Your task to perform on an android device: Search for flights from Boston to Sydney Image 0: 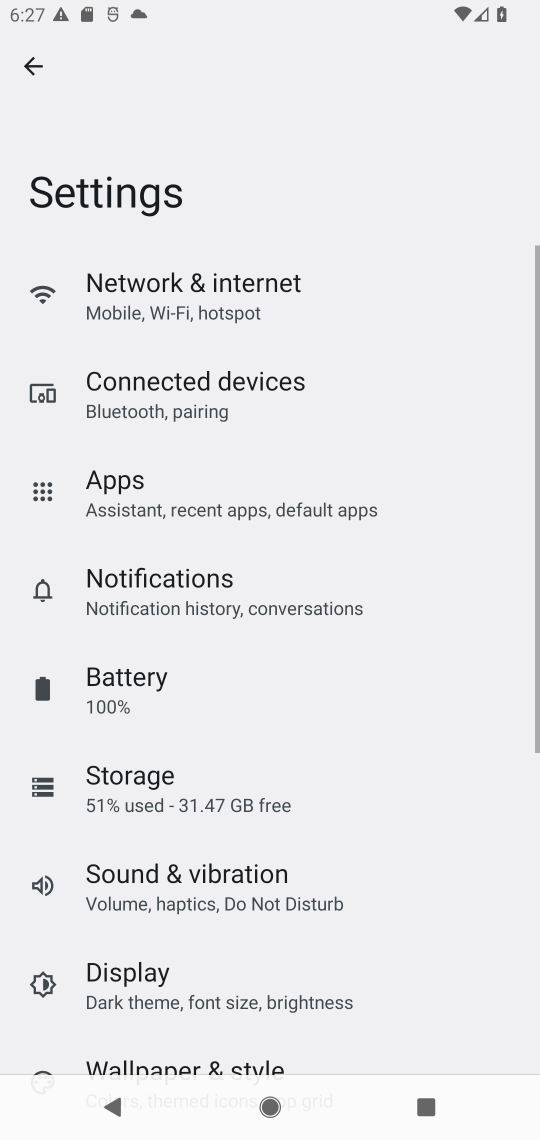
Step 0: press home button
Your task to perform on an android device: Search for flights from Boston to Sydney Image 1: 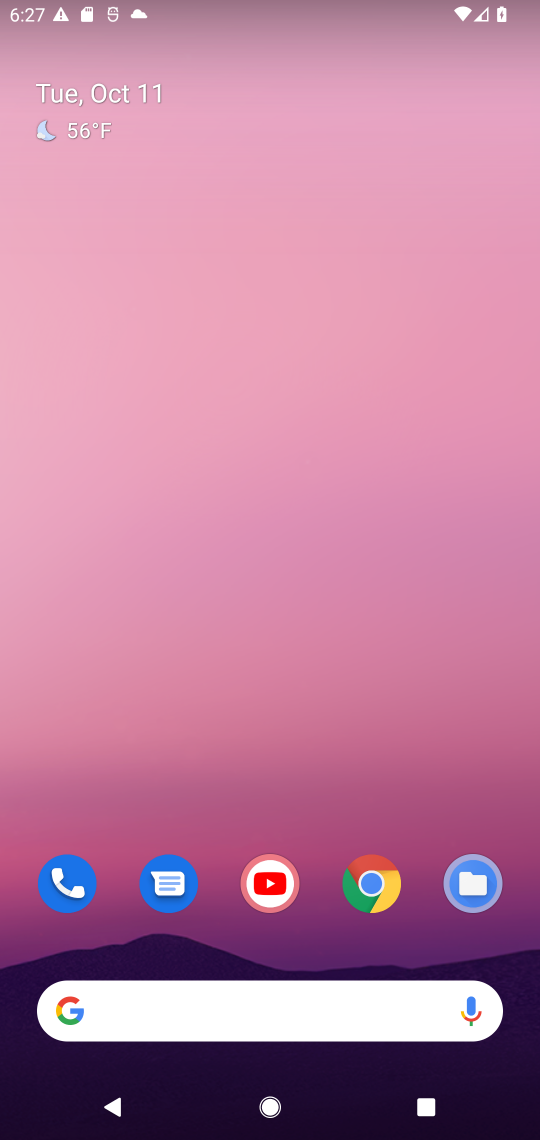
Step 1: click (275, 42)
Your task to perform on an android device: Search for flights from Boston to Sydney Image 2: 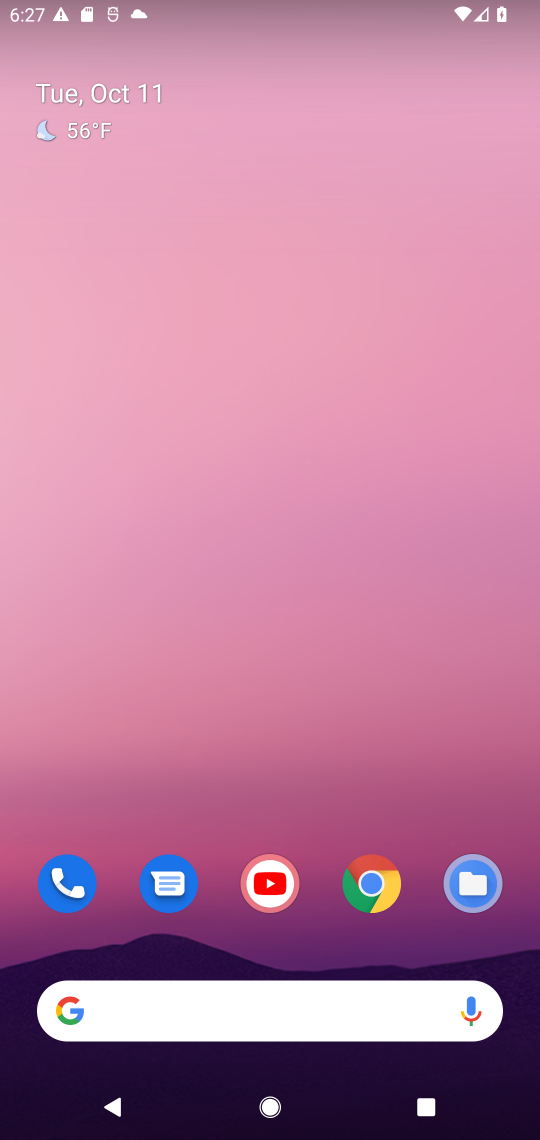
Step 2: drag from (256, 613) to (262, 79)
Your task to perform on an android device: Search for flights from Boston to Sydney Image 3: 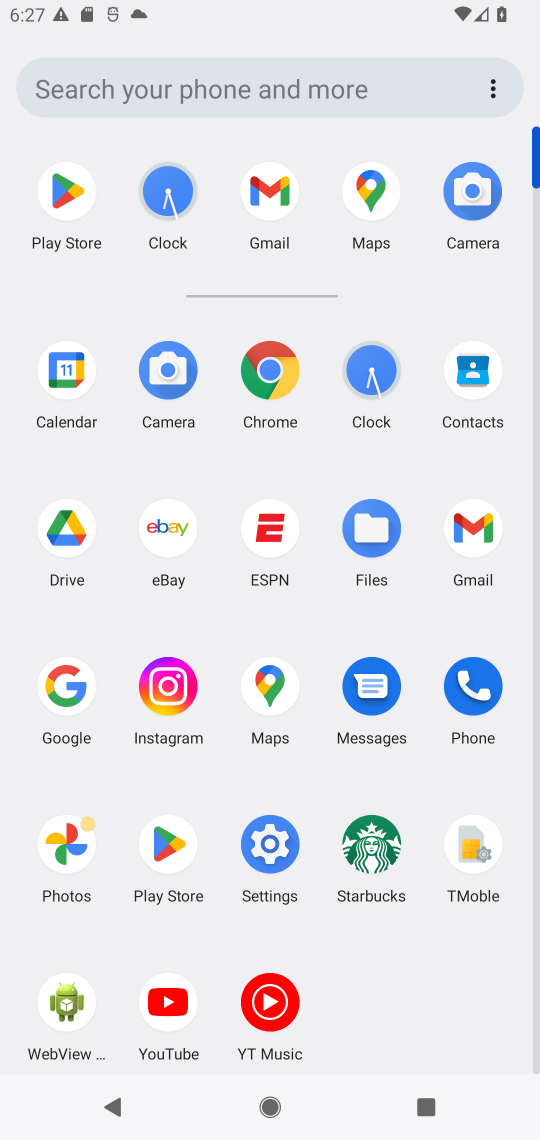
Step 3: click (276, 380)
Your task to perform on an android device: Search for flights from Boston to Sydney Image 4: 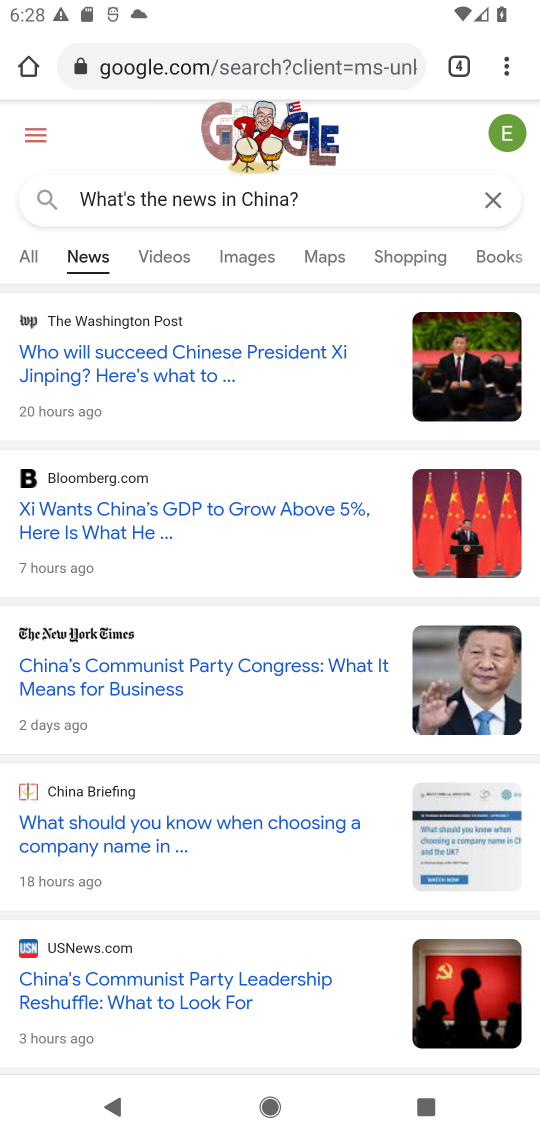
Step 4: click (343, 62)
Your task to perform on an android device: Search for flights from Boston to Sydney Image 5: 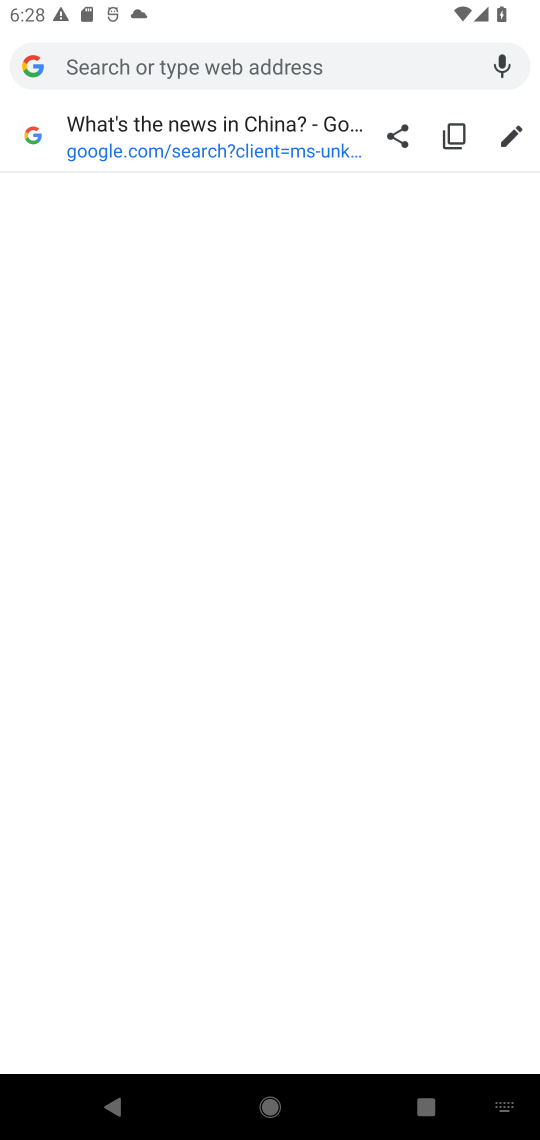
Step 5: type "flights from Boston to Sydney"
Your task to perform on an android device: Search for flights from Boston to Sydney Image 6: 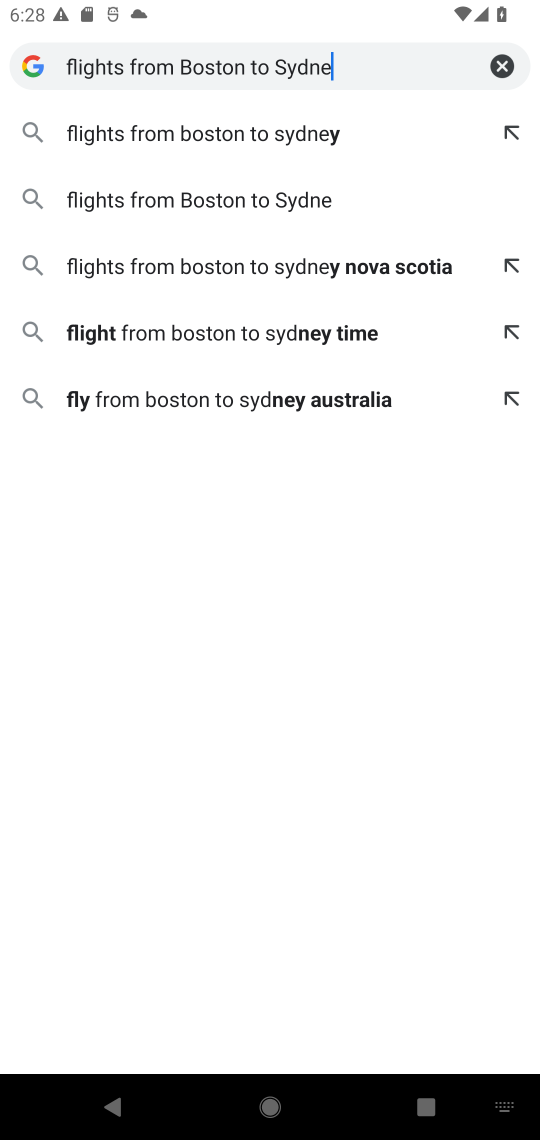
Step 6: press enter
Your task to perform on an android device: Search for flights from Boston to Sydney Image 7: 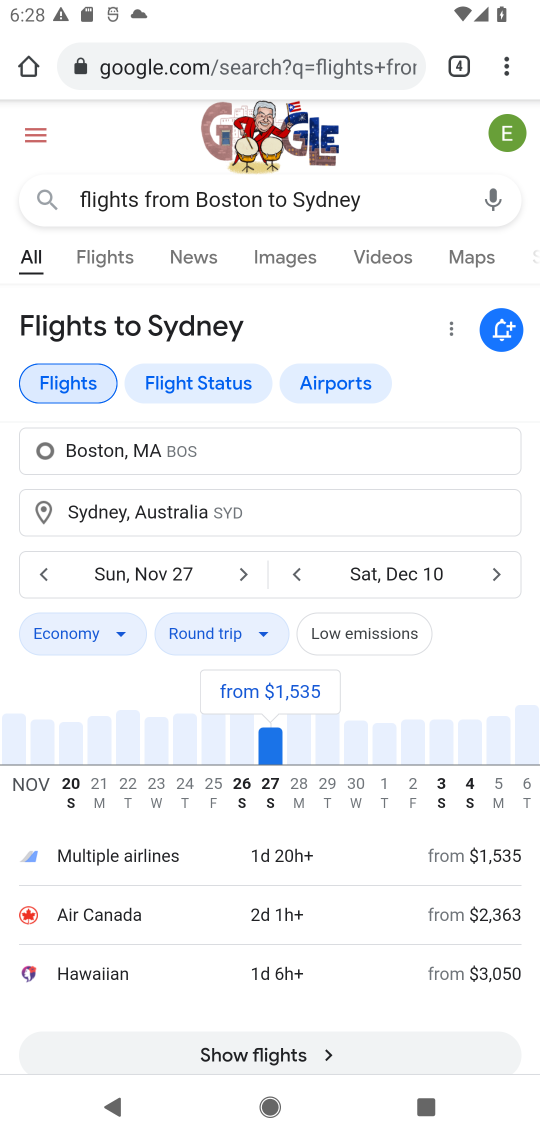
Step 7: task complete